Your task to perform on an android device: open a bookmark in the chrome app Image 0: 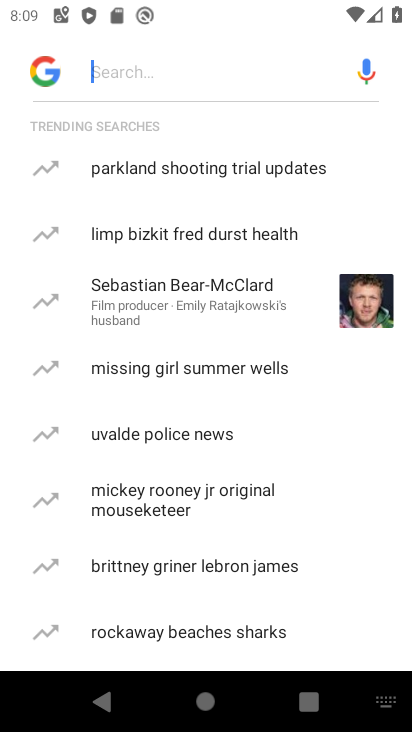
Step 0: press back button
Your task to perform on an android device: open a bookmark in the chrome app Image 1: 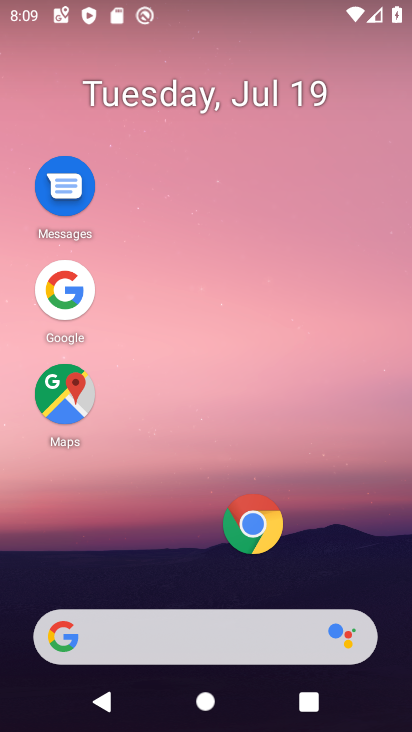
Step 1: click (250, 531)
Your task to perform on an android device: open a bookmark in the chrome app Image 2: 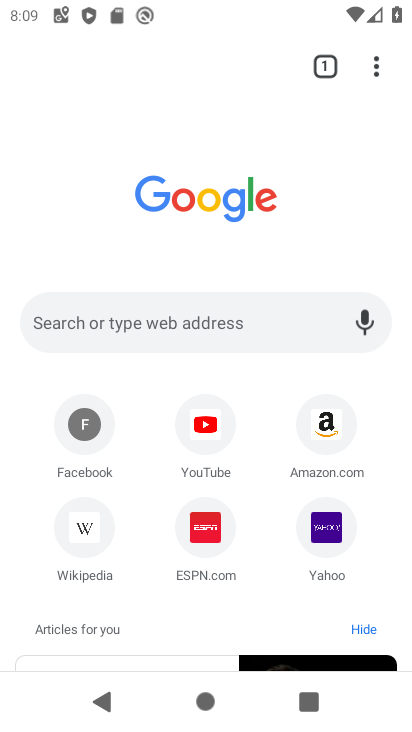
Step 2: click (372, 74)
Your task to perform on an android device: open a bookmark in the chrome app Image 3: 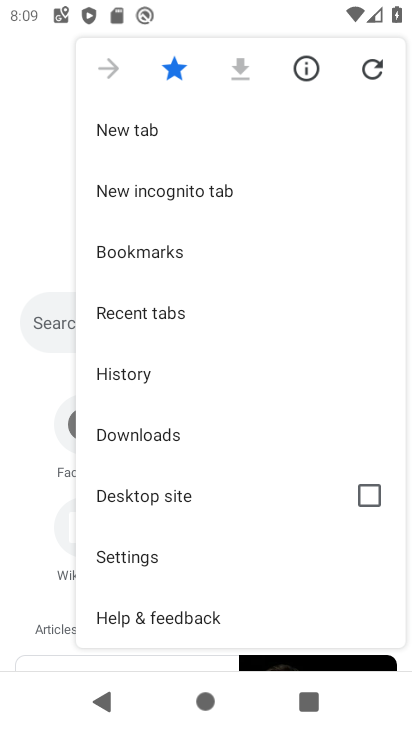
Step 3: click (154, 239)
Your task to perform on an android device: open a bookmark in the chrome app Image 4: 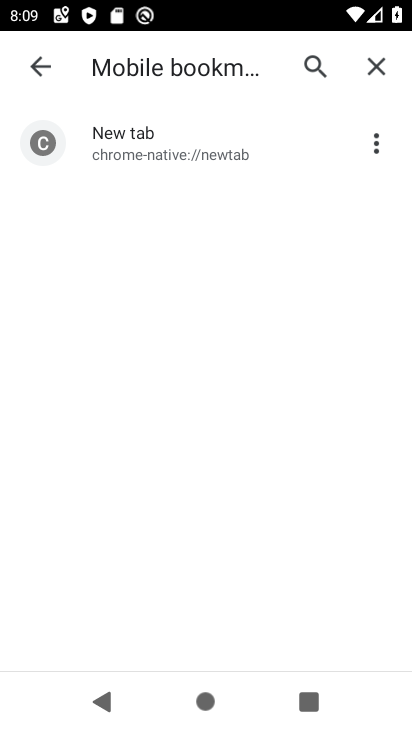
Step 4: task complete